Your task to perform on an android device: Open calendar and show me the second week of next month Image 0: 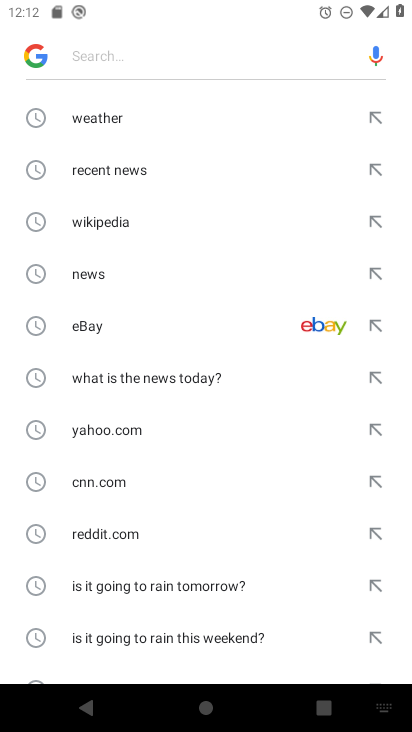
Step 0: press back button
Your task to perform on an android device: Open calendar and show me the second week of next month Image 1: 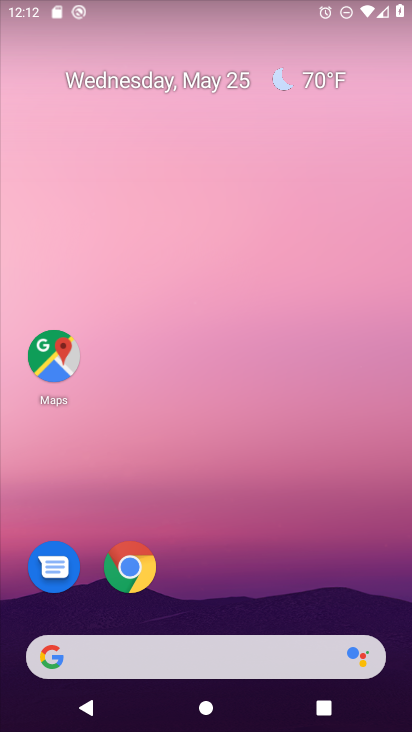
Step 1: drag from (394, 692) to (399, 263)
Your task to perform on an android device: Open calendar and show me the second week of next month Image 2: 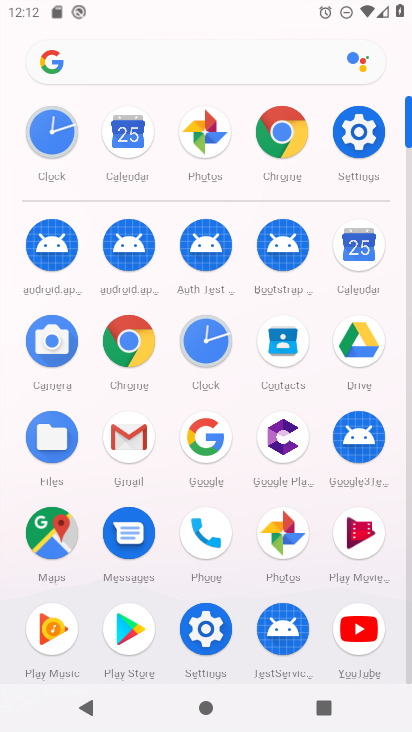
Step 2: click (367, 247)
Your task to perform on an android device: Open calendar and show me the second week of next month Image 3: 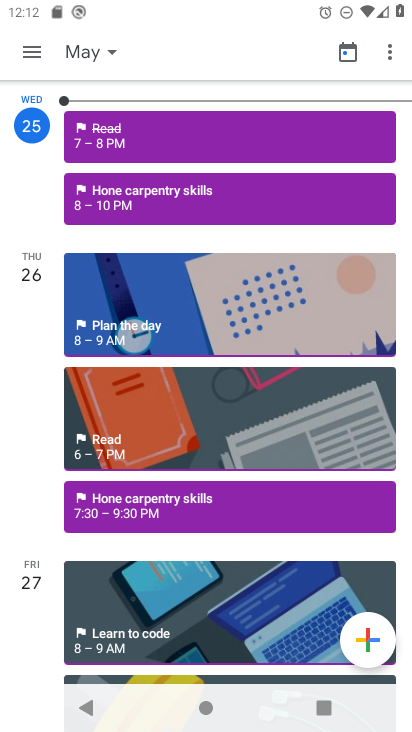
Step 3: click (114, 55)
Your task to perform on an android device: Open calendar and show me the second week of next month Image 4: 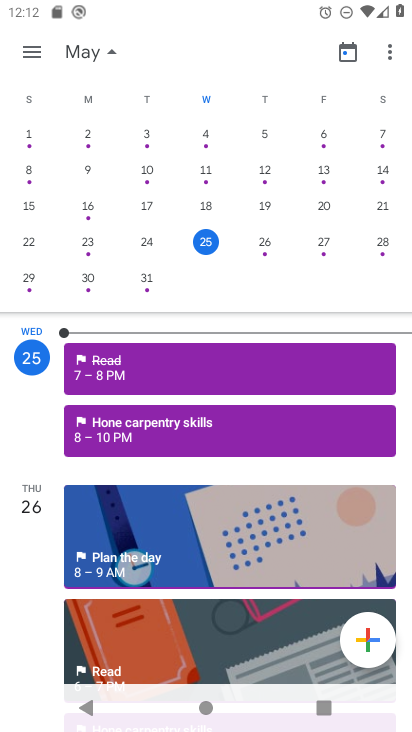
Step 4: drag from (399, 176) to (84, 170)
Your task to perform on an android device: Open calendar and show me the second week of next month Image 5: 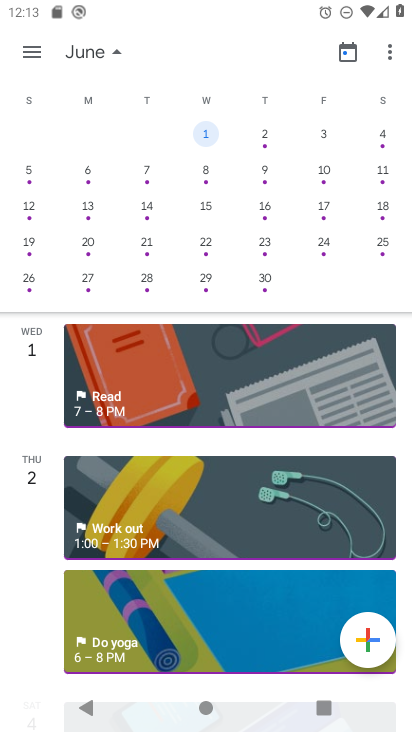
Step 5: click (208, 170)
Your task to perform on an android device: Open calendar and show me the second week of next month Image 6: 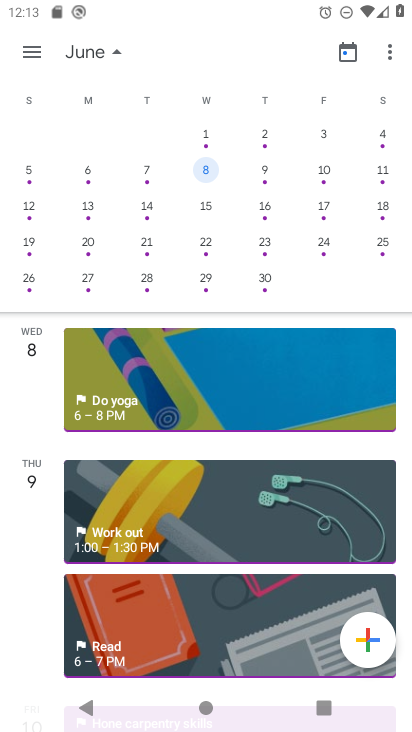
Step 6: click (23, 49)
Your task to perform on an android device: Open calendar and show me the second week of next month Image 7: 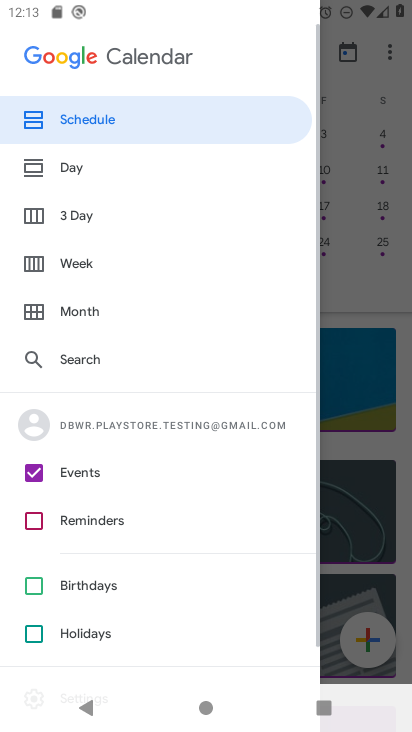
Step 7: click (68, 258)
Your task to perform on an android device: Open calendar and show me the second week of next month Image 8: 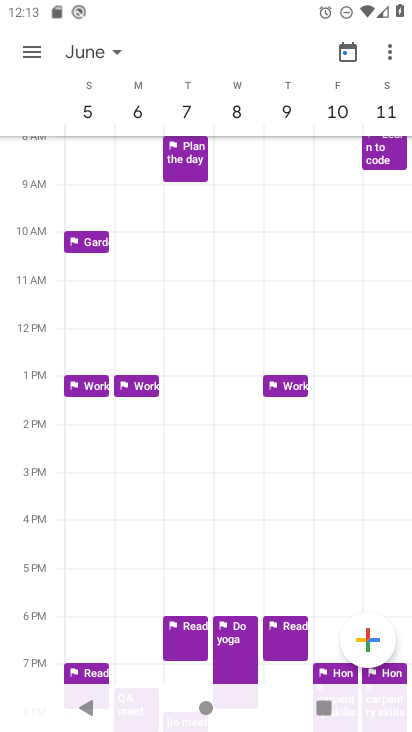
Step 8: task complete